Your task to perform on an android device: Go to Android settings Image 0: 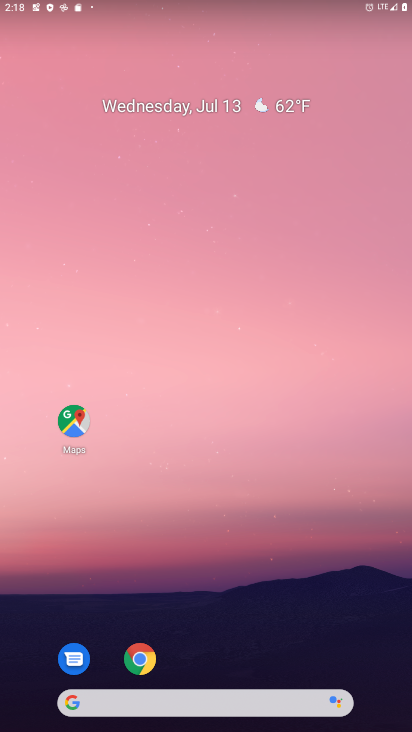
Step 0: drag from (198, 729) to (187, 63)
Your task to perform on an android device: Go to Android settings Image 1: 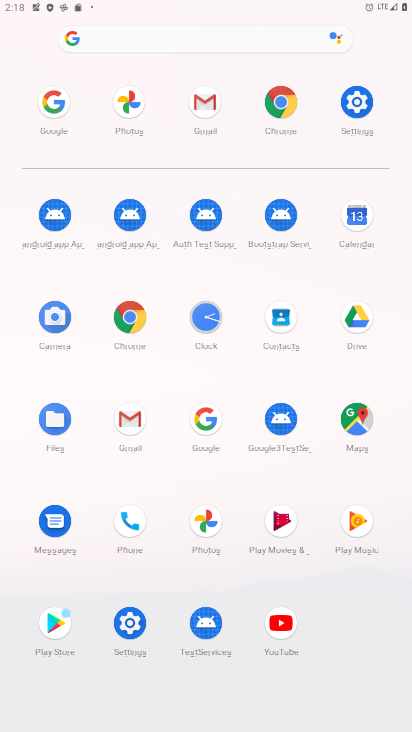
Step 1: click (352, 98)
Your task to perform on an android device: Go to Android settings Image 2: 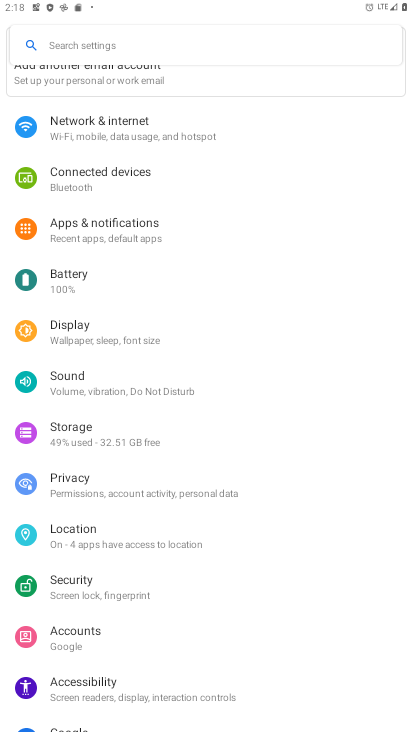
Step 2: task complete